Your task to perform on an android device: find photos in the google photos app Image 0: 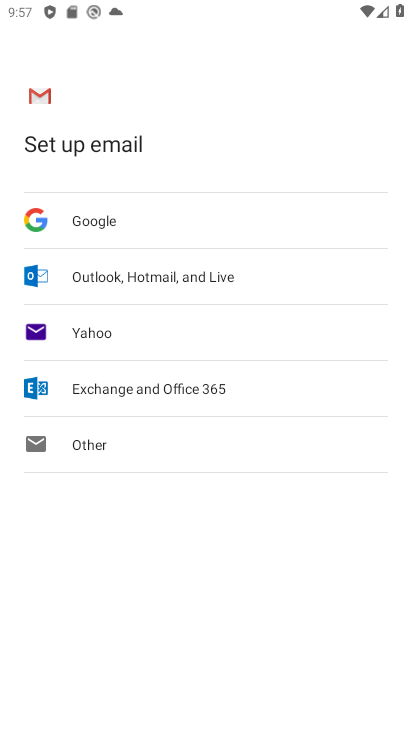
Step 0: click (329, 319)
Your task to perform on an android device: find photos in the google photos app Image 1: 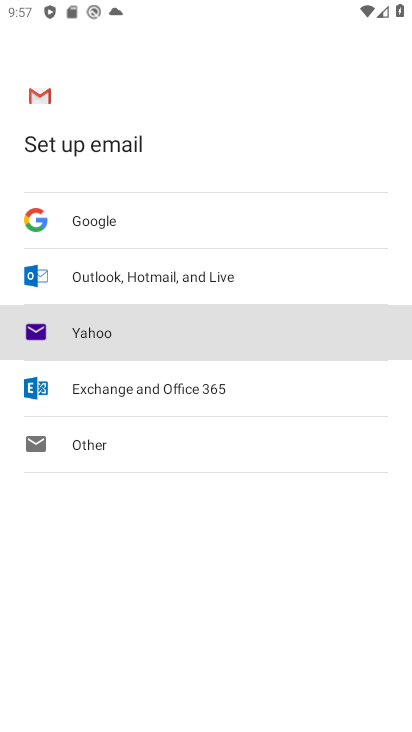
Step 1: press home button
Your task to perform on an android device: find photos in the google photos app Image 2: 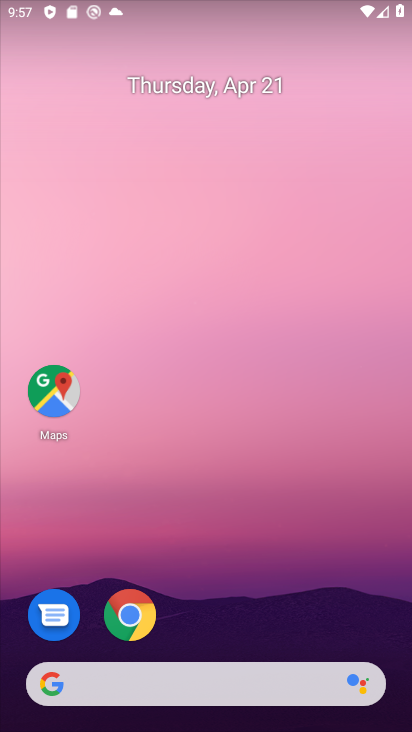
Step 2: drag from (206, 646) to (170, 85)
Your task to perform on an android device: find photos in the google photos app Image 3: 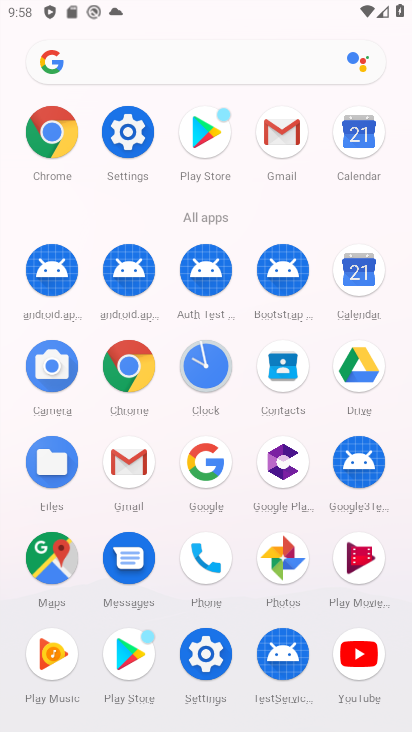
Step 3: click (280, 555)
Your task to perform on an android device: find photos in the google photos app Image 4: 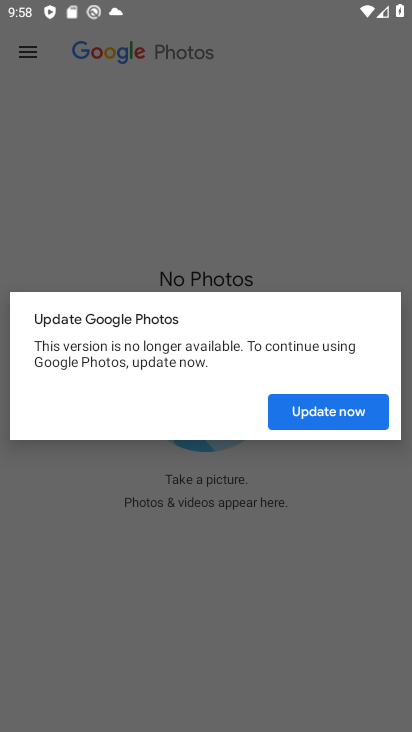
Step 4: click (336, 414)
Your task to perform on an android device: find photos in the google photos app Image 5: 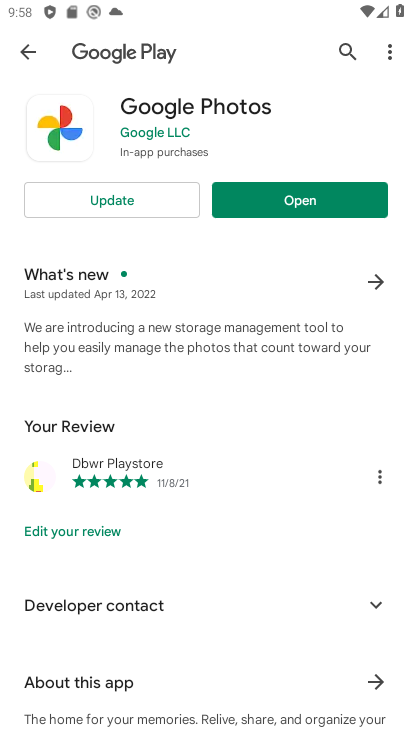
Step 5: click (96, 208)
Your task to perform on an android device: find photos in the google photos app Image 6: 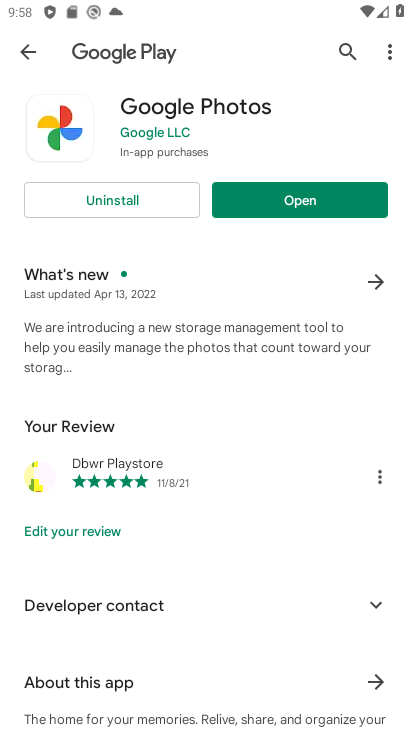
Step 6: click (308, 196)
Your task to perform on an android device: find photos in the google photos app Image 7: 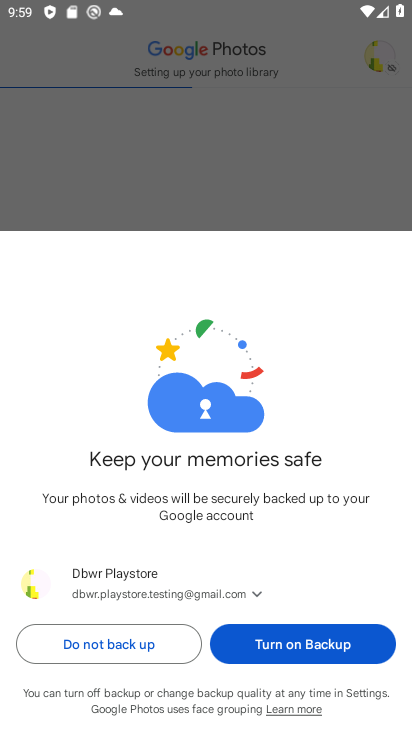
Step 7: click (297, 637)
Your task to perform on an android device: find photos in the google photos app Image 8: 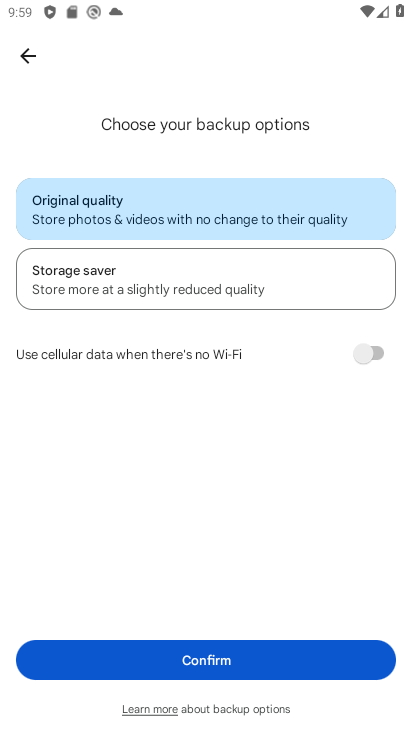
Step 8: click (208, 657)
Your task to perform on an android device: find photos in the google photos app Image 9: 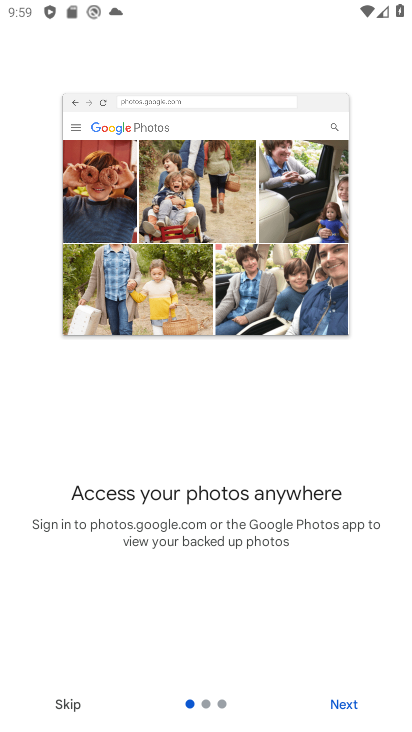
Step 9: click (344, 702)
Your task to perform on an android device: find photos in the google photos app Image 10: 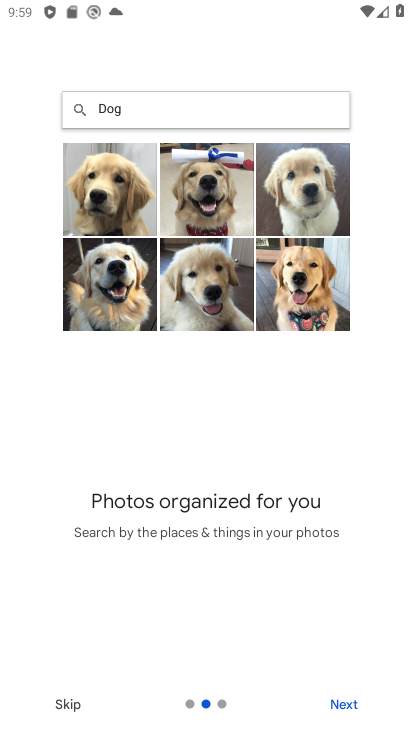
Step 10: click (344, 702)
Your task to perform on an android device: find photos in the google photos app Image 11: 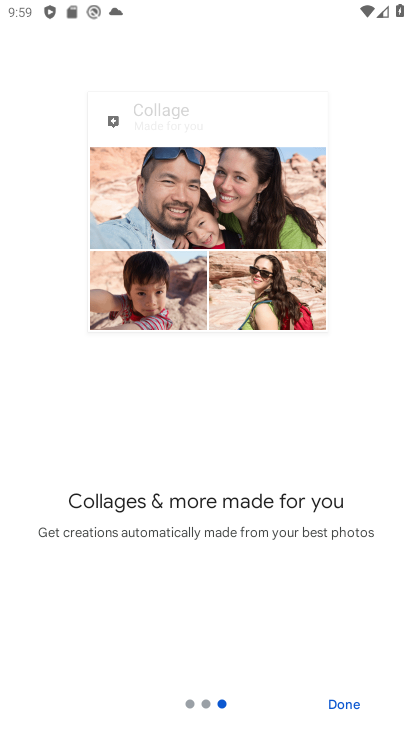
Step 11: click (344, 702)
Your task to perform on an android device: find photos in the google photos app Image 12: 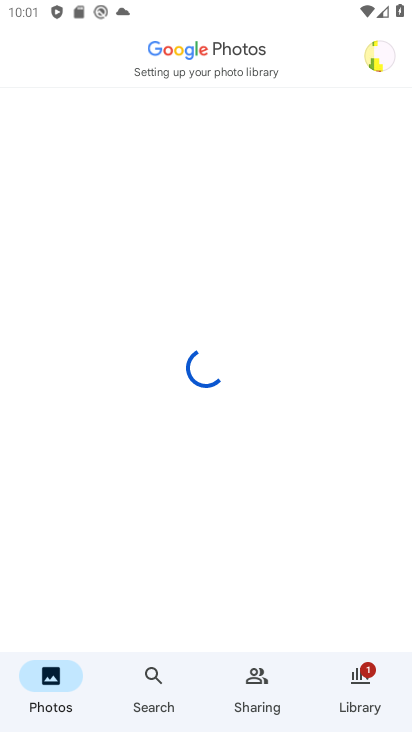
Step 12: task complete